Your task to perform on an android device: Open CNN.com Image 0: 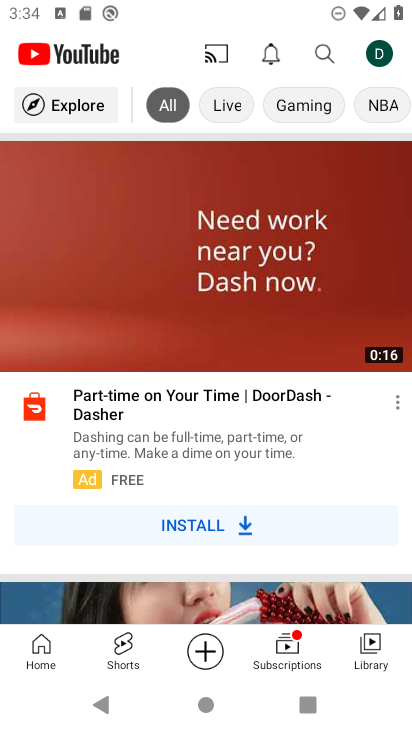
Step 0: press home button
Your task to perform on an android device: Open CNN.com Image 1: 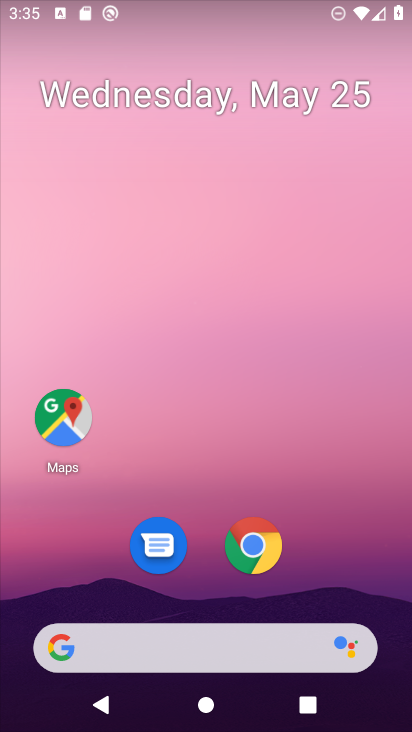
Step 1: click (230, 634)
Your task to perform on an android device: Open CNN.com Image 2: 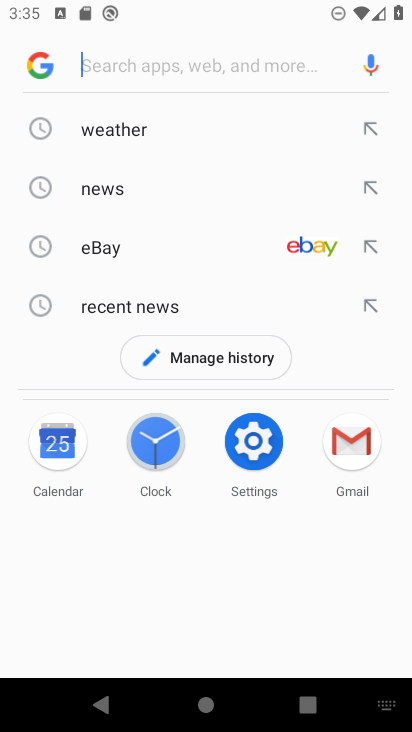
Step 2: type "cnn.com"
Your task to perform on an android device: Open CNN.com Image 3: 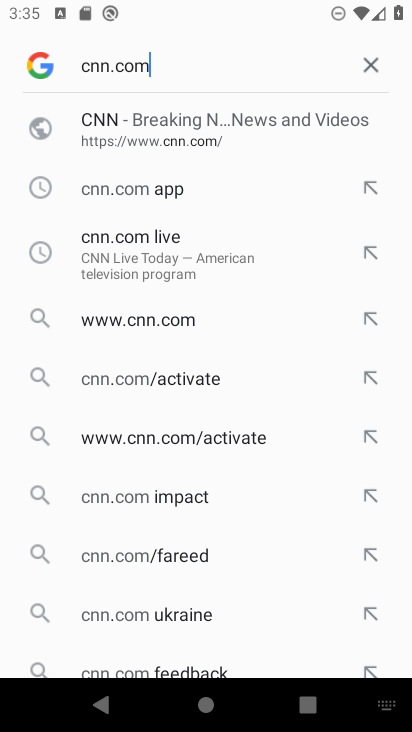
Step 3: click (209, 126)
Your task to perform on an android device: Open CNN.com Image 4: 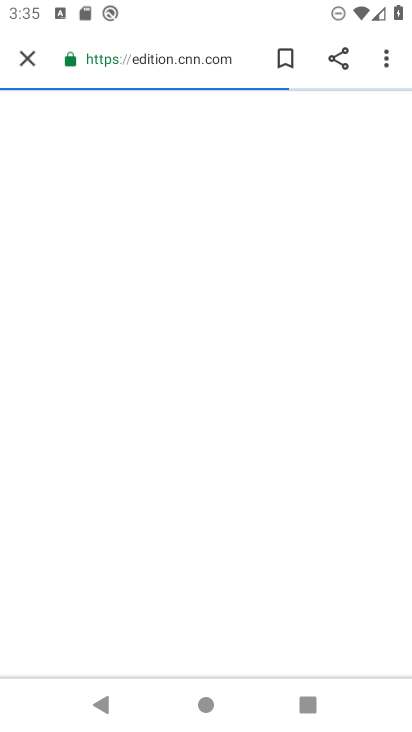
Step 4: task complete